Your task to perform on an android device: search for starred emails in the gmail app Image 0: 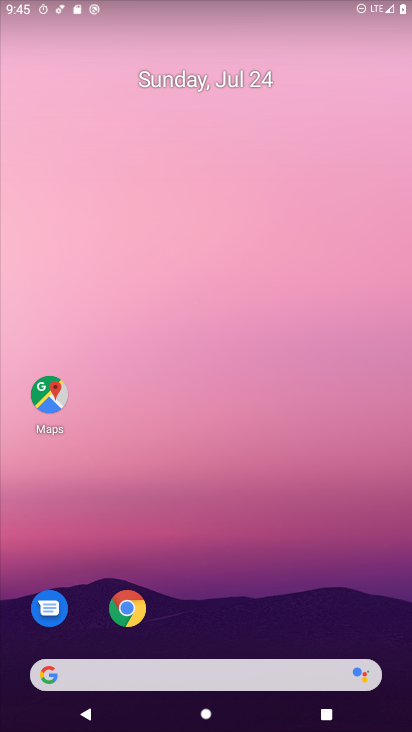
Step 0: drag from (152, 599) to (159, 217)
Your task to perform on an android device: search for starred emails in the gmail app Image 1: 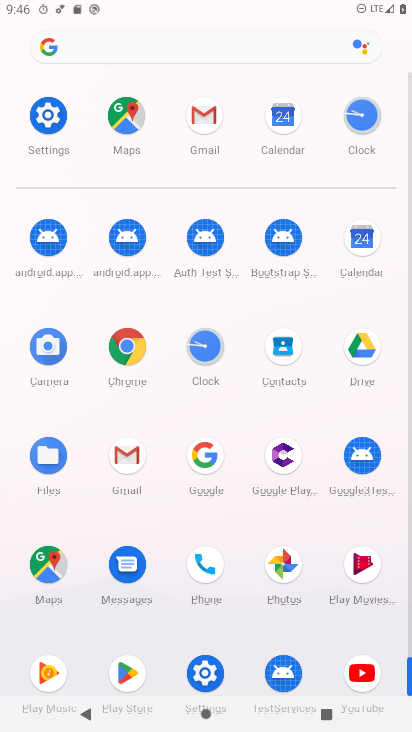
Step 1: click (124, 456)
Your task to perform on an android device: search for starred emails in the gmail app Image 2: 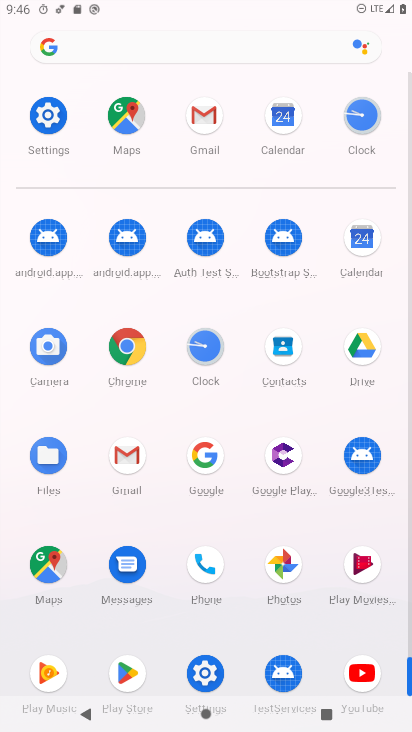
Step 2: click (124, 456)
Your task to perform on an android device: search for starred emails in the gmail app Image 3: 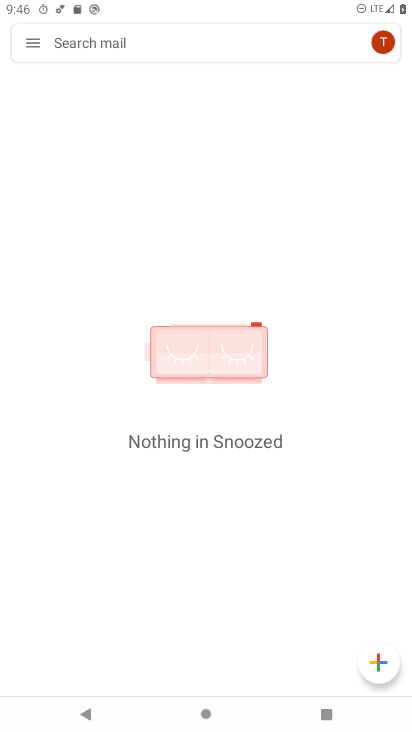
Step 3: drag from (193, 549) to (206, 346)
Your task to perform on an android device: search for starred emails in the gmail app Image 4: 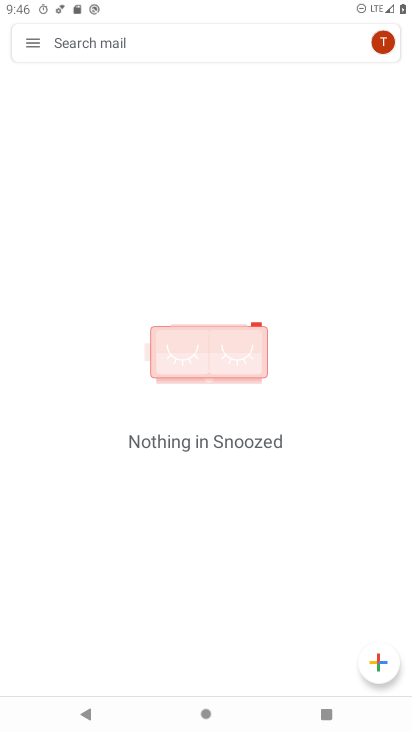
Step 4: click (211, 320)
Your task to perform on an android device: search for starred emails in the gmail app Image 5: 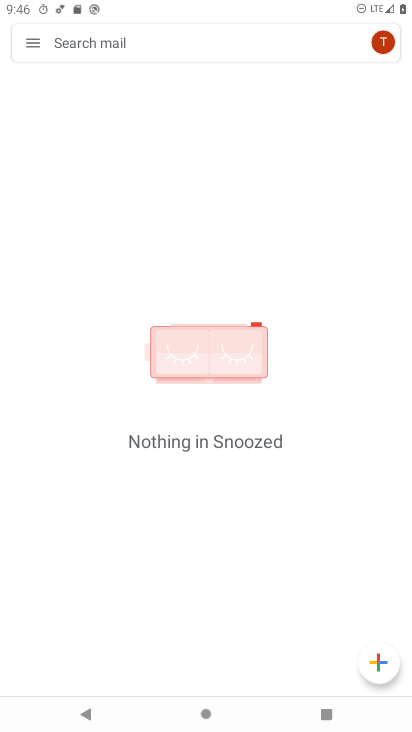
Step 5: click (32, 42)
Your task to perform on an android device: search for starred emails in the gmail app Image 6: 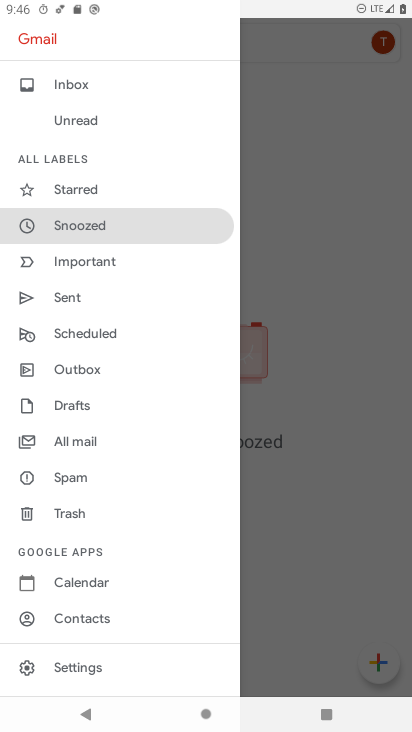
Step 6: click (85, 188)
Your task to perform on an android device: search for starred emails in the gmail app Image 7: 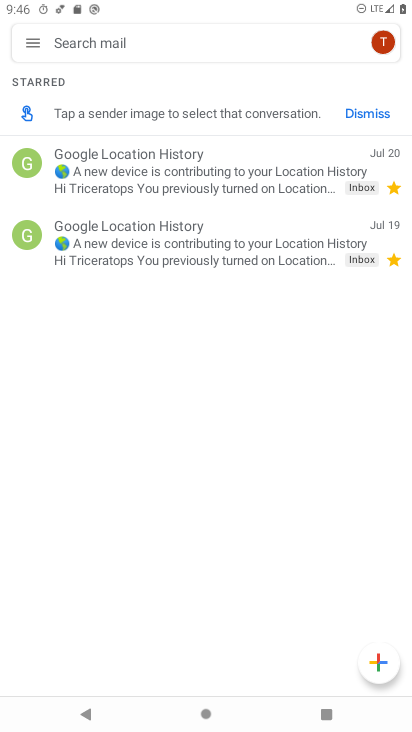
Step 7: drag from (258, 585) to (262, 314)
Your task to perform on an android device: search for starred emails in the gmail app Image 8: 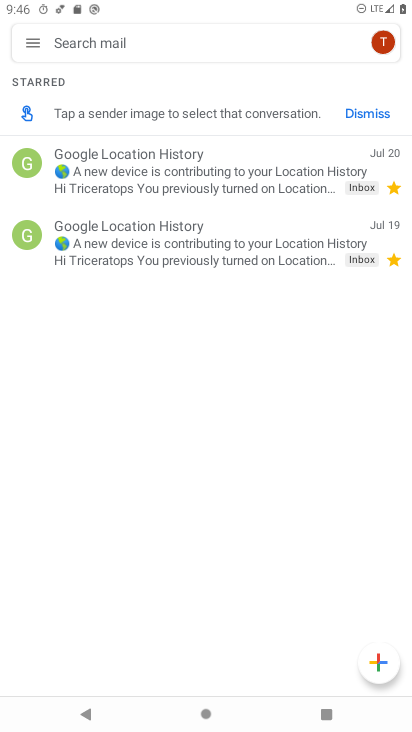
Step 8: click (30, 42)
Your task to perform on an android device: search for starred emails in the gmail app Image 9: 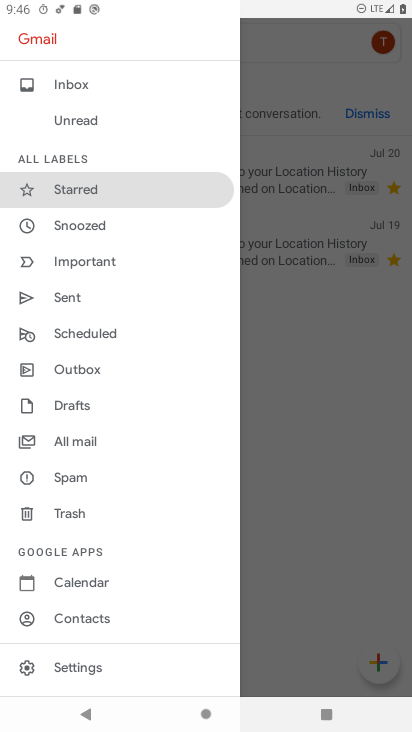
Step 9: click (69, 187)
Your task to perform on an android device: search for starred emails in the gmail app Image 10: 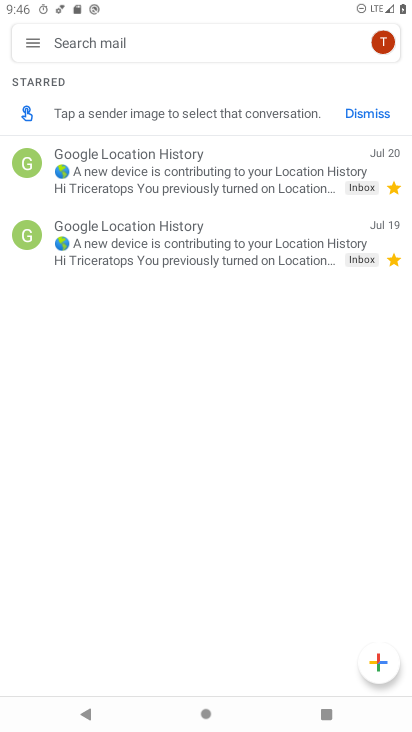
Step 10: task complete